Your task to perform on an android device: open the mobile data screen to see how much data has been used Image 0: 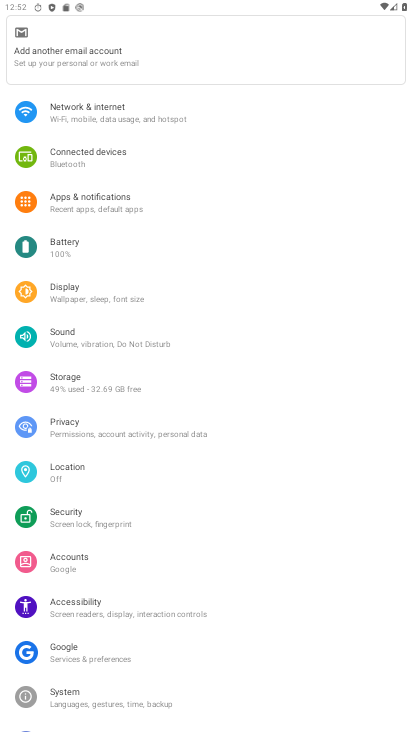
Step 0: click (84, 120)
Your task to perform on an android device: open the mobile data screen to see how much data has been used Image 1: 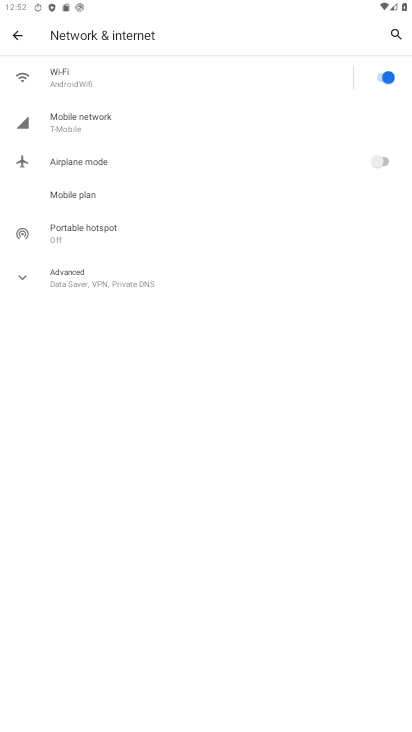
Step 1: click (86, 129)
Your task to perform on an android device: open the mobile data screen to see how much data has been used Image 2: 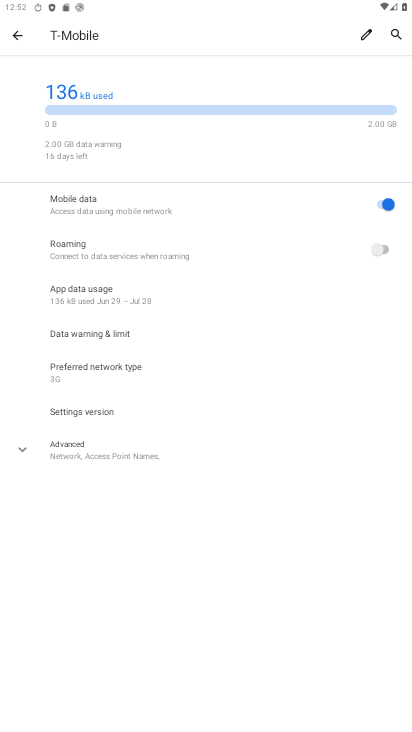
Step 2: task complete